Your task to perform on an android device: Go to battery settings Image 0: 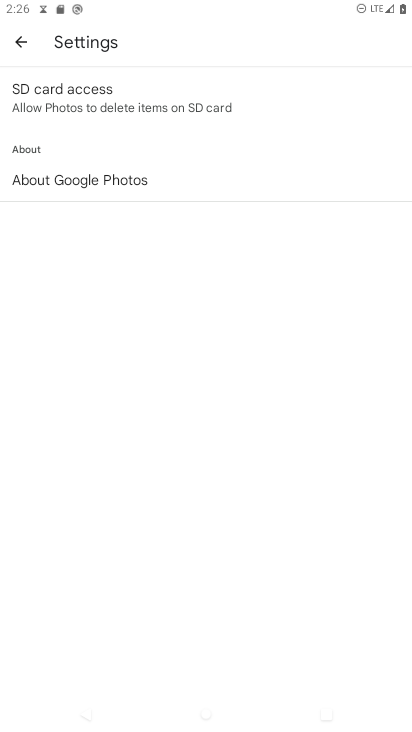
Step 0: press home button
Your task to perform on an android device: Go to battery settings Image 1: 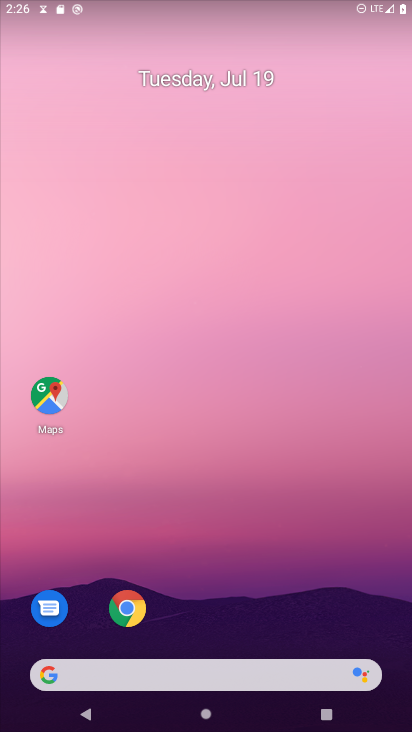
Step 1: drag from (275, 497) to (292, 29)
Your task to perform on an android device: Go to battery settings Image 2: 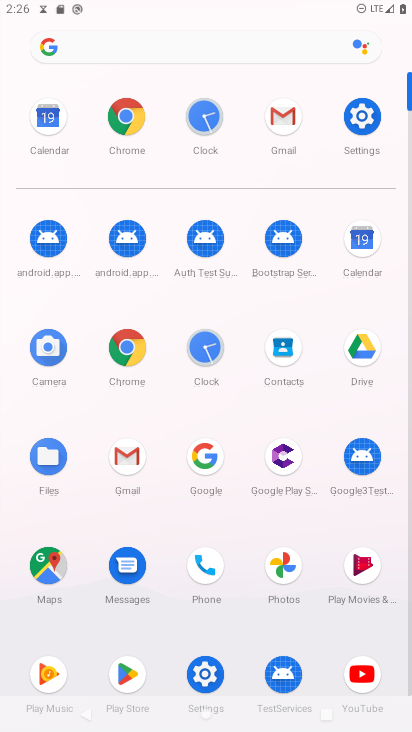
Step 2: click (356, 107)
Your task to perform on an android device: Go to battery settings Image 3: 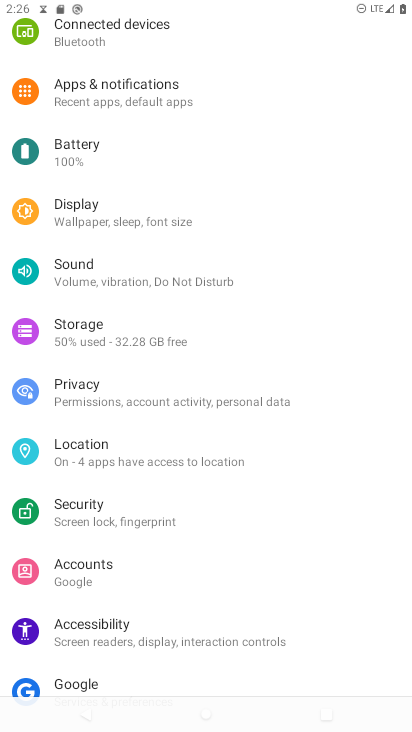
Step 3: click (113, 160)
Your task to perform on an android device: Go to battery settings Image 4: 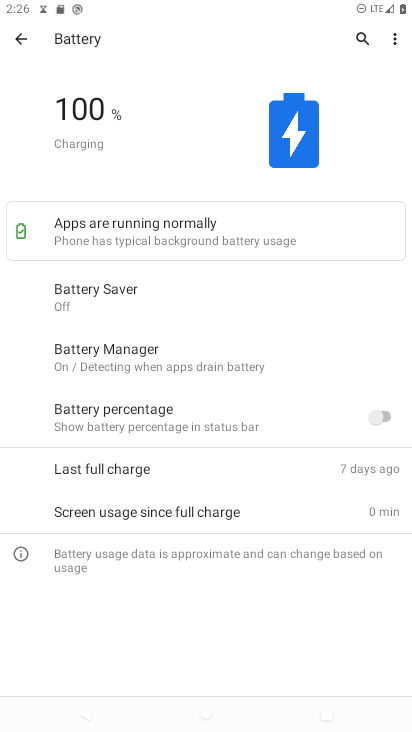
Step 4: task complete